Your task to perform on an android device: turn on location history Image 0: 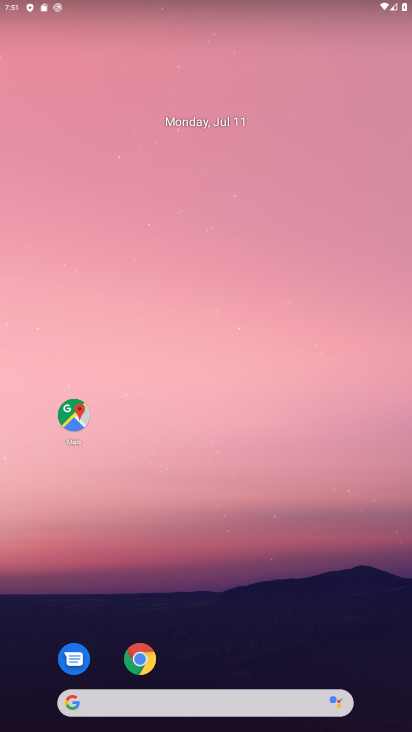
Step 0: drag from (4, 692) to (212, 98)
Your task to perform on an android device: turn on location history Image 1: 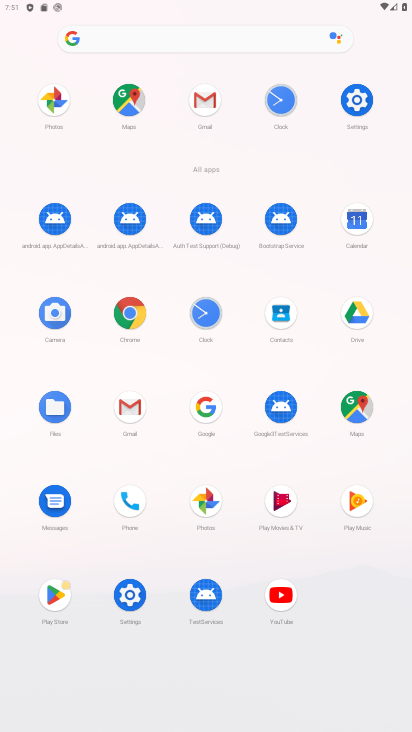
Step 1: click (116, 592)
Your task to perform on an android device: turn on location history Image 2: 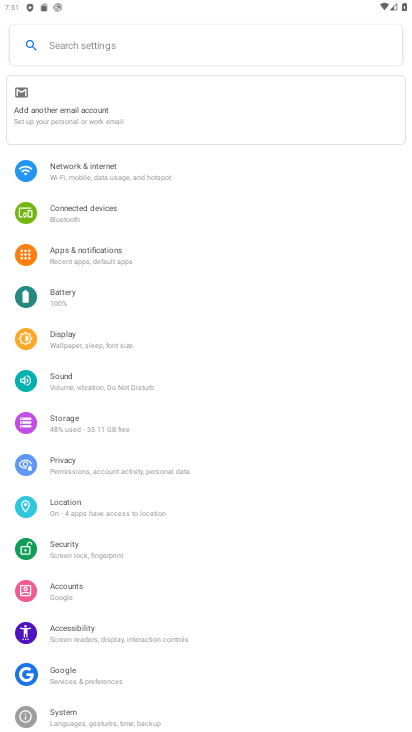
Step 2: click (47, 501)
Your task to perform on an android device: turn on location history Image 3: 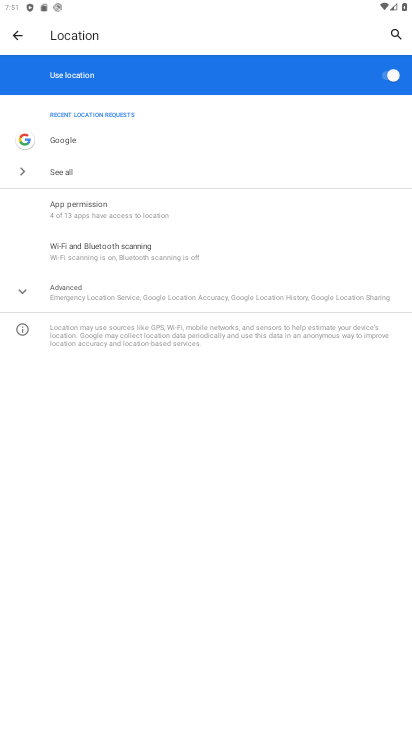
Step 3: click (83, 167)
Your task to perform on an android device: turn on location history Image 4: 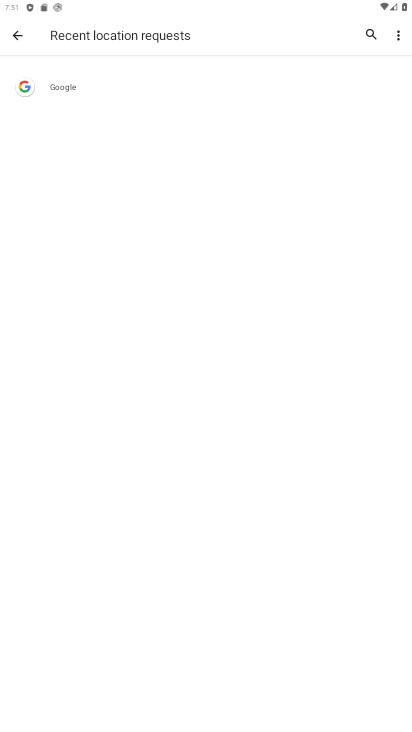
Step 4: task complete